Your task to perform on an android device: turn off priority inbox in the gmail app Image 0: 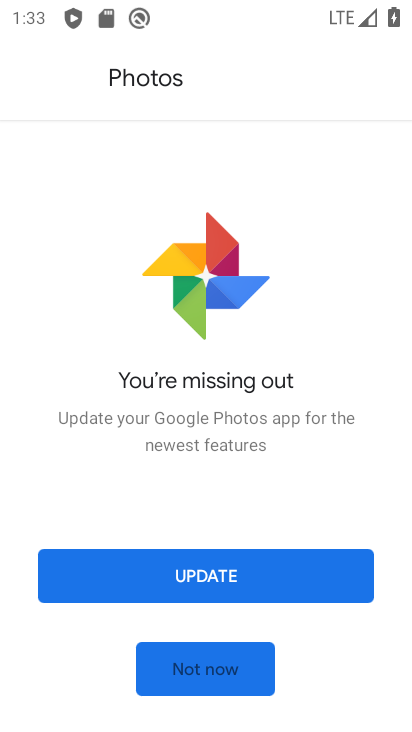
Step 0: click (243, 672)
Your task to perform on an android device: turn off priority inbox in the gmail app Image 1: 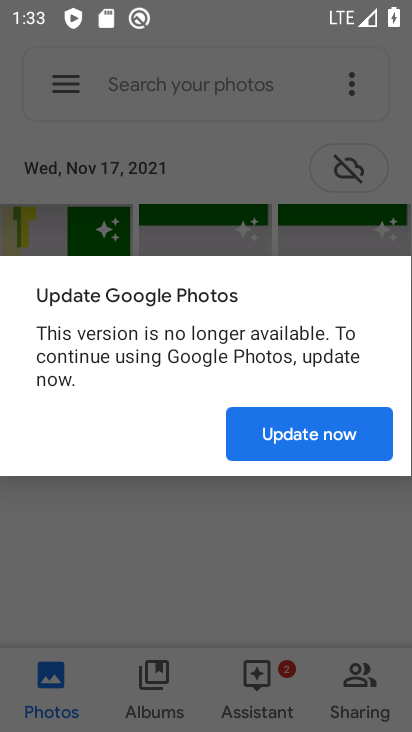
Step 1: press back button
Your task to perform on an android device: turn off priority inbox in the gmail app Image 2: 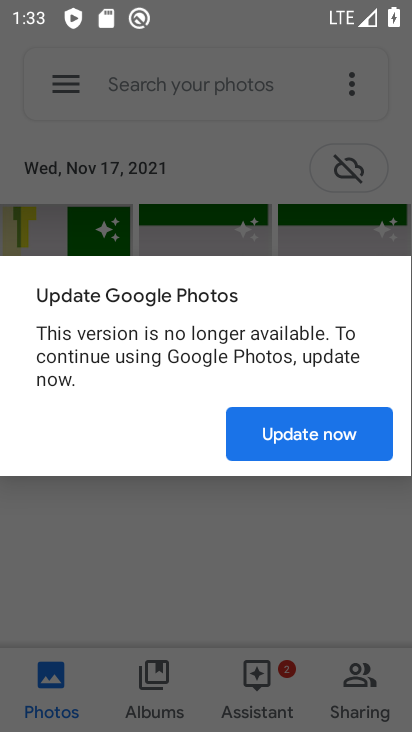
Step 2: press home button
Your task to perform on an android device: turn off priority inbox in the gmail app Image 3: 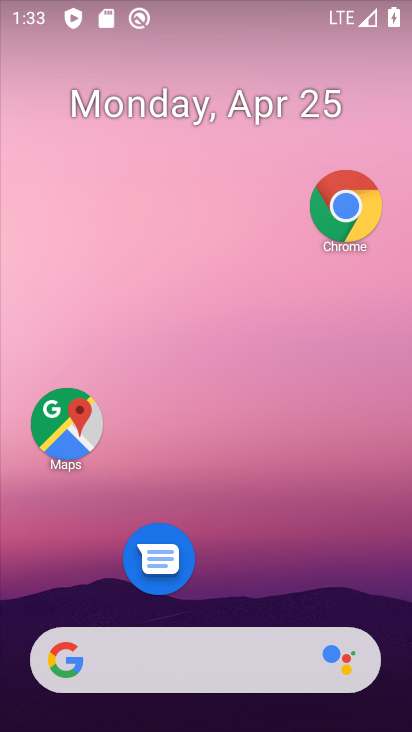
Step 3: drag from (210, 518) to (258, 30)
Your task to perform on an android device: turn off priority inbox in the gmail app Image 4: 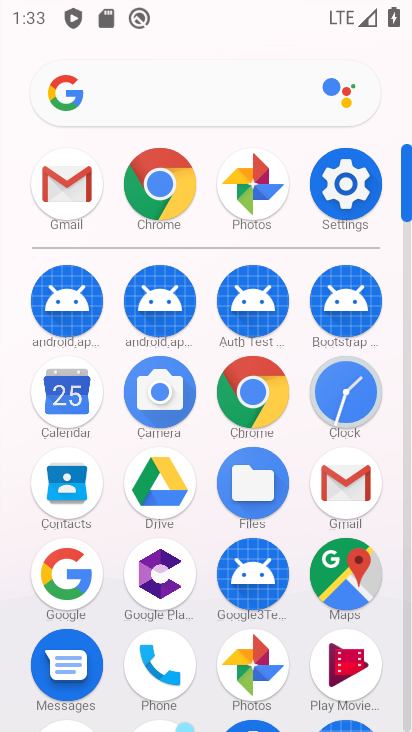
Step 4: click (69, 171)
Your task to perform on an android device: turn off priority inbox in the gmail app Image 5: 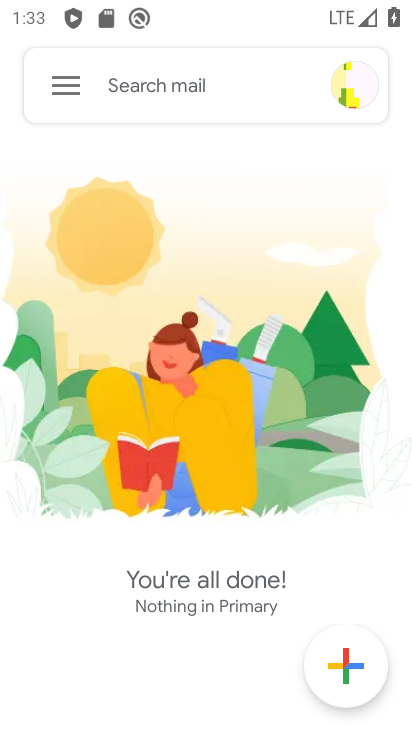
Step 5: click (72, 85)
Your task to perform on an android device: turn off priority inbox in the gmail app Image 6: 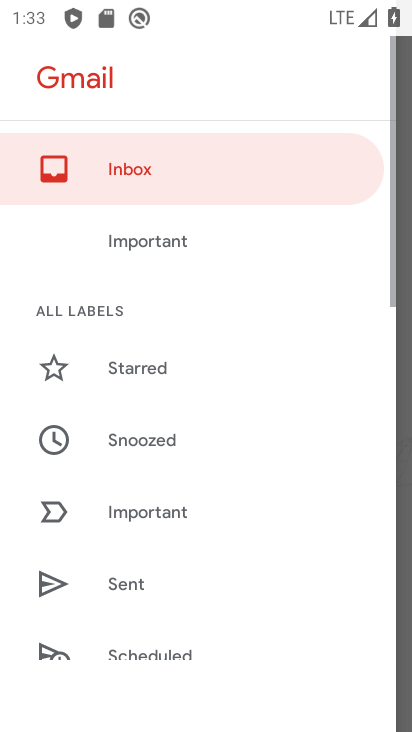
Step 6: drag from (168, 590) to (347, 0)
Your task to perform on an android device: turn off priority inbox in the gmail app Image 7: 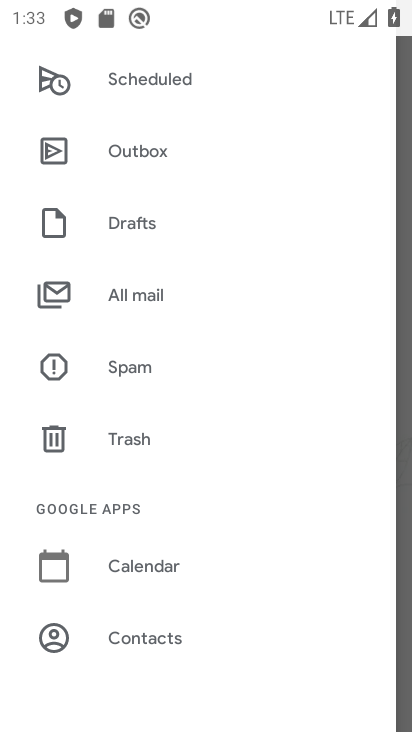
Step 7: drag from (168, 621) to (296, 44)
Your task to perform on an android device: turn off priority inbox in the gmail app Image 8: 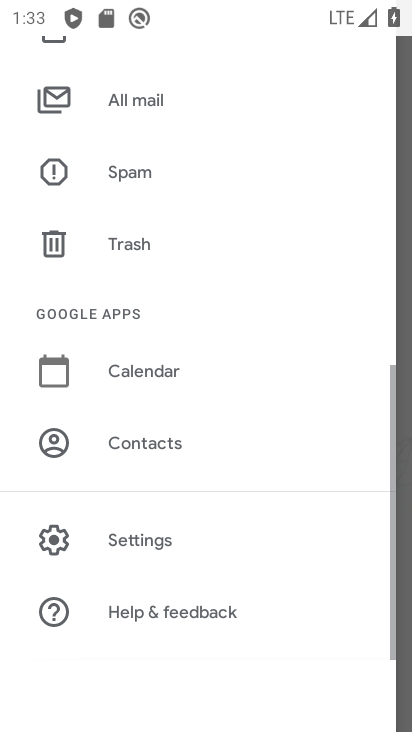
Step 8: click (180, 531)
Your task to perform on an android device: turn off priority inbox in the gmail app Image 9: 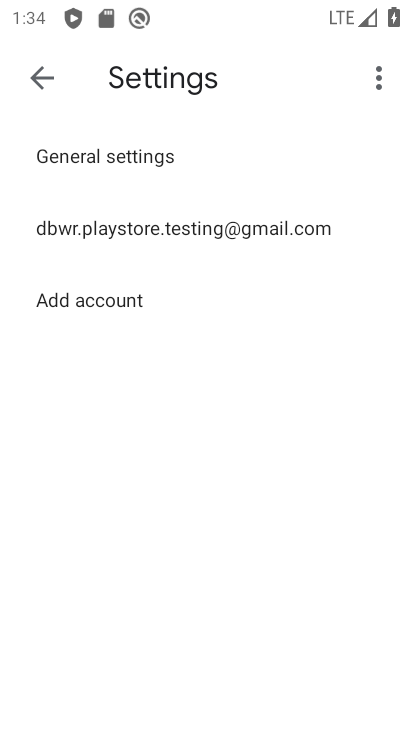
Step 9: click (85, 221)
Your task to perform on an android device: turn off priority inbox in the gmail app Image 10: 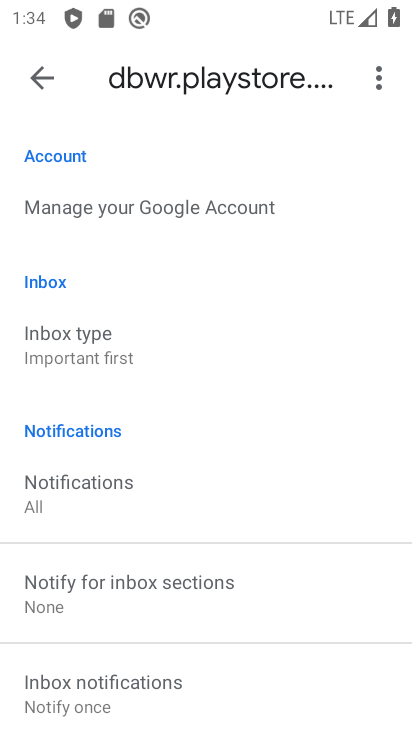
Step 10: click (69, 341)
Your task to perform on an android device: turn off priority inbox in the gmail app Image 11: 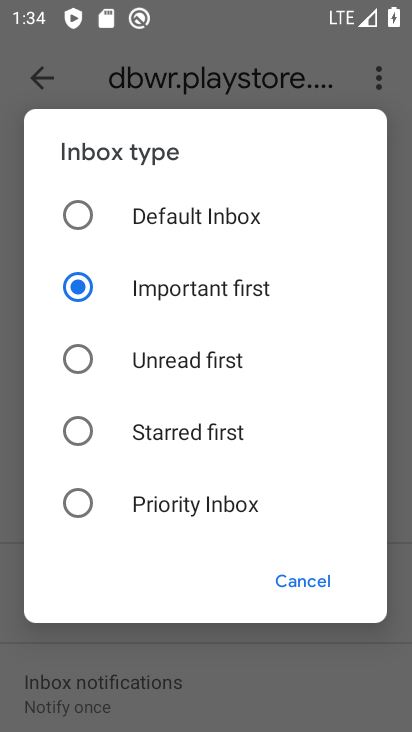
Step 11: task complete